Your task to perform on an android device: Do I have any events this weekend? Image 0: 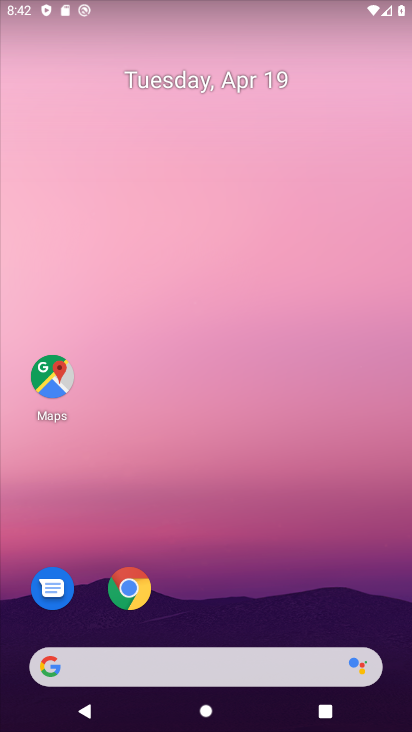
Step 0: press home button
Your task to perform on an android device: Do I have any events this weekend? Image 1: 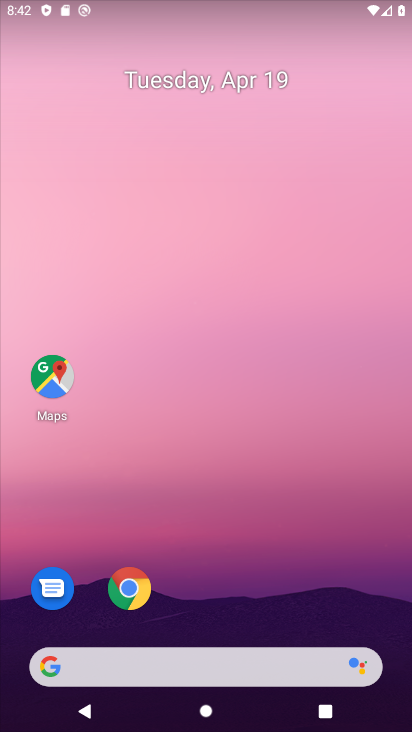
Step 1: drag from (206, 583) to (223, 63)
Your task to perform on an android device: Do I have any events this weekend? Image 2: 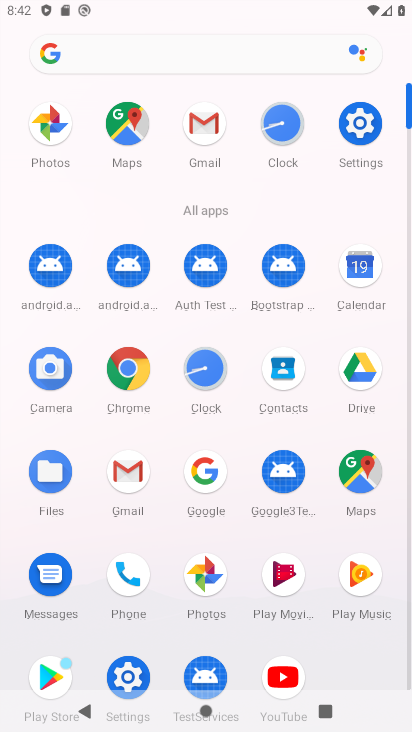
Step 2: click (363, 266)
Your task to perform on an android device: Do I have any events this weekend? Image 3: 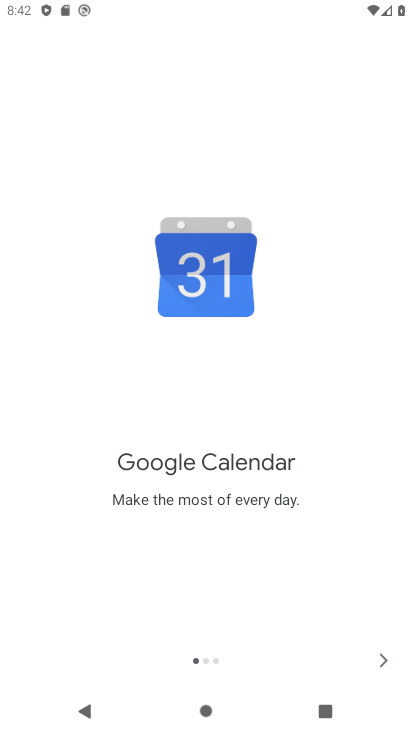
Step 3: click (382, 655)
Your task to perform on an android device: Do I have any events this weekend? Image 4: 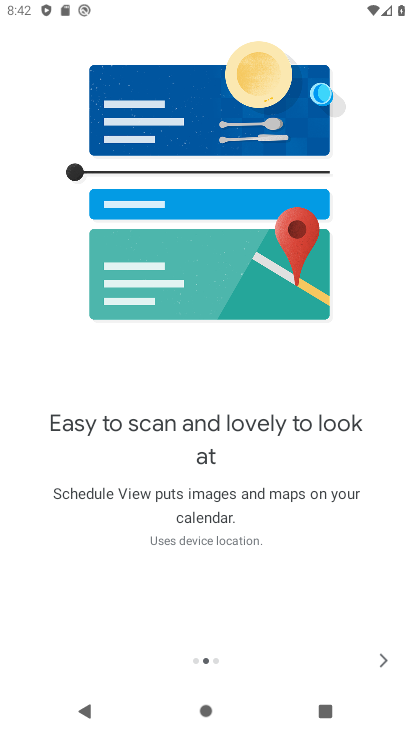
Step 4: click (380, 661)
Your task to perform on an android device: Do I have any events this weekend? Image 5: 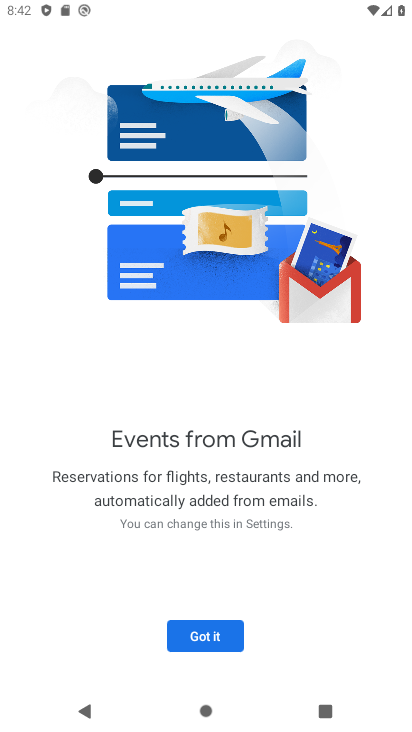
Step 5: click (211, 631)
Your task to perform on an android device: Do I have any events this weekend? Image 6: 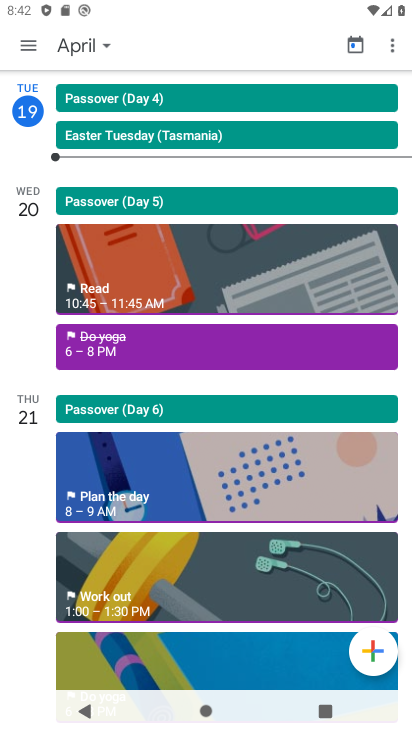
Step 6: click (21, 39)
Your task to perform on an android device: Do I have any events this weekend? Image 7: 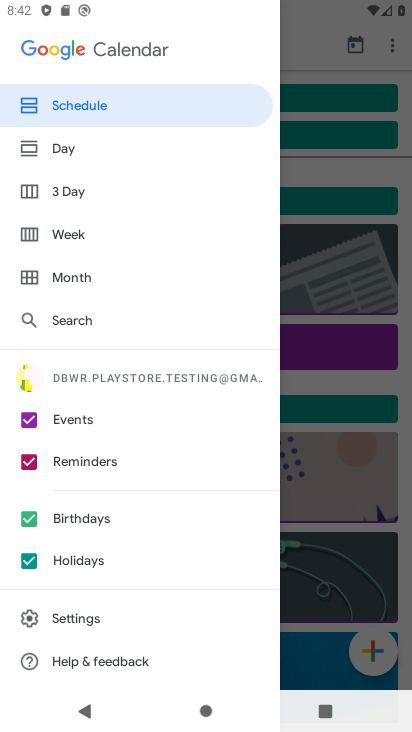
Step 7: click (85, 224)
Your task to perform on an android device: Do I have any events this weekend? Image 8: 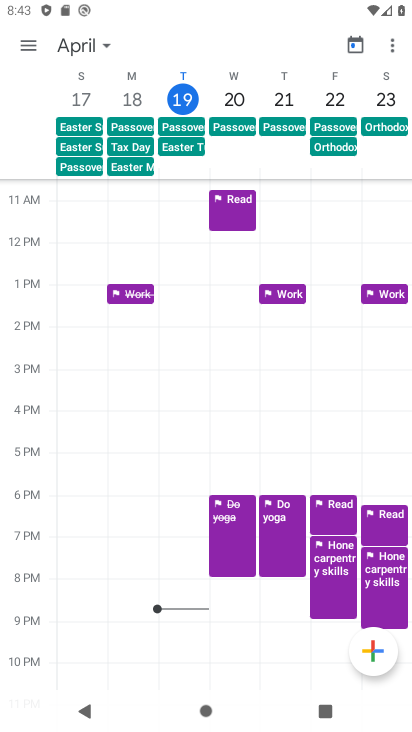
Step 8: click (84, 103)
Your task to perform on an android device: Do I have any events this weekend? Image 9: 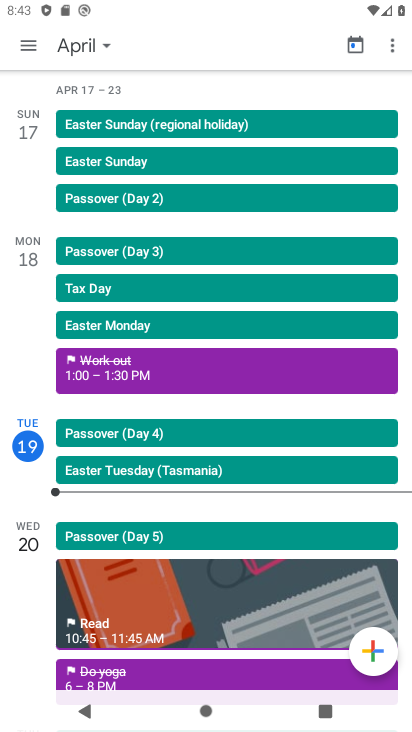
Step 9: task complete